Your task to perform on an android device: See recent photos Image 0: 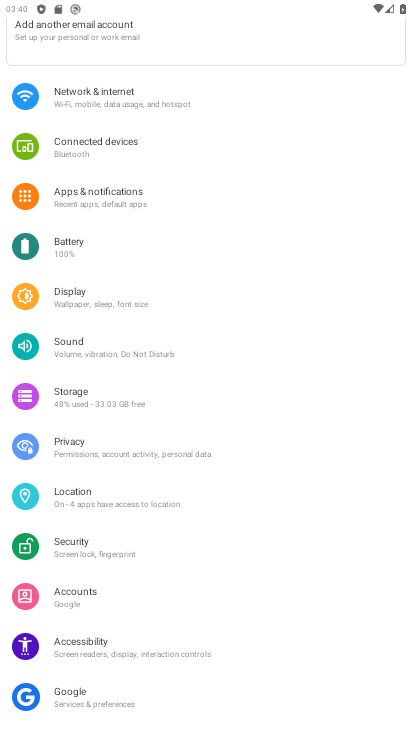
Step 0: press home button
Your task to perform on an android device: See recent photos Image 1: 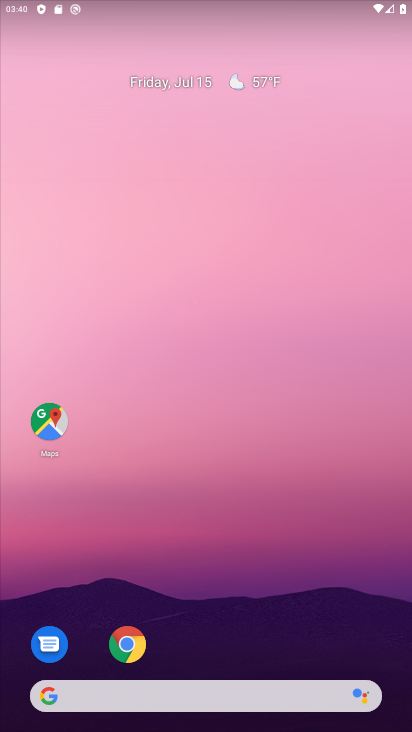
Step 1: drag from (308, 641) to (214, 2)
Your task to perform on an android device: See recent photos Image 2: 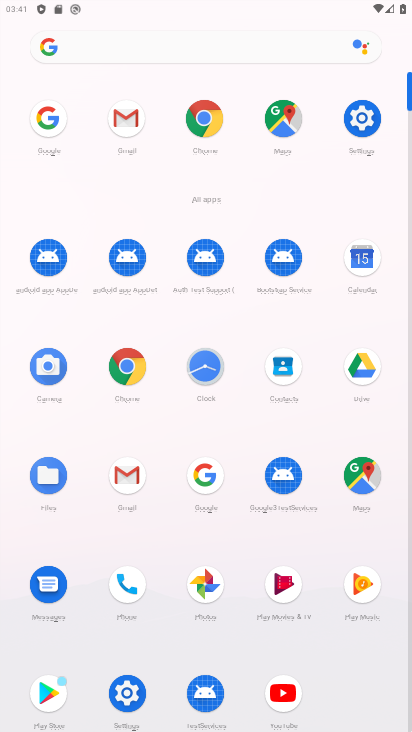
Step 2: click (203, 585)
Your task to perform on an android device: See recent photos Image 3: 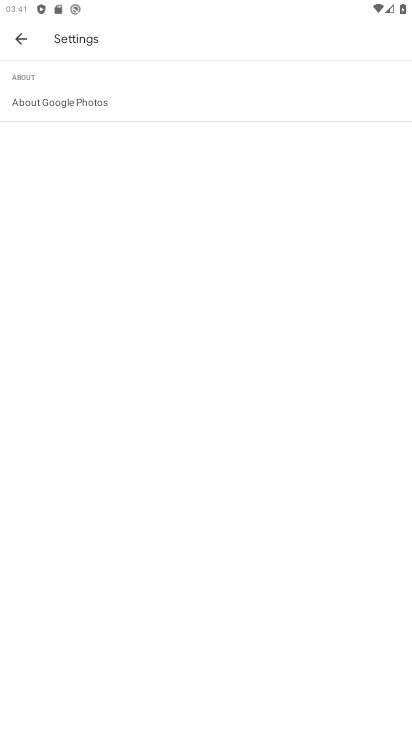
Step 3: click (20, 49)
Your task to perform on an android device: See recent photos Image 4: 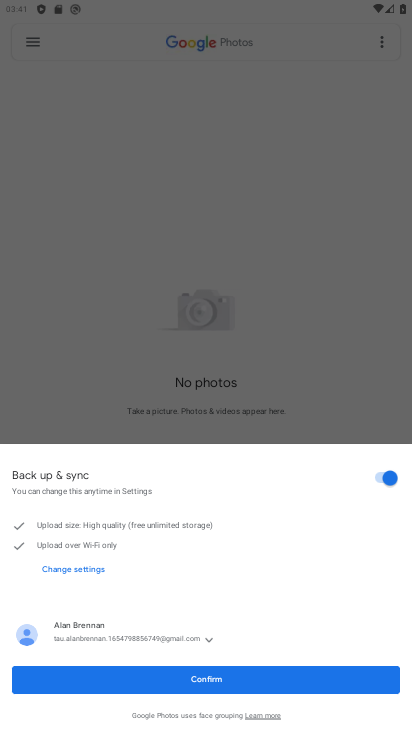
Step 4: click (244, 677)
Your task to perform on an android device: See recent photos Image 5: 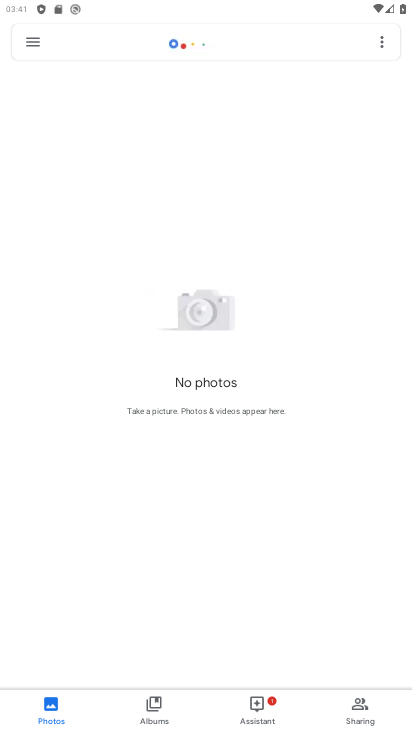
Step 5: task complete